Your task to perform on an android device: Go to Maps Image 0: 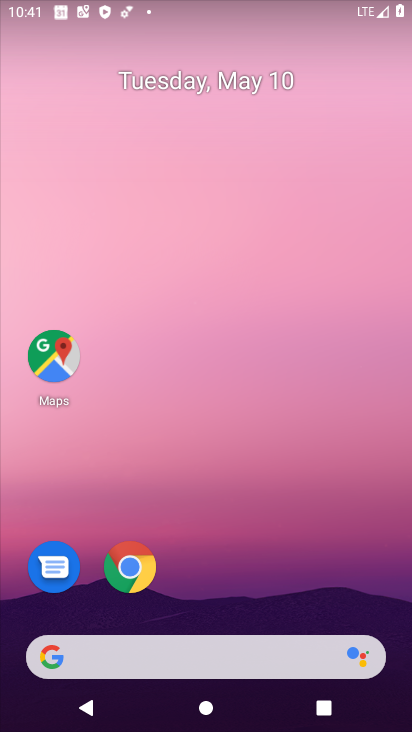
Step 0: click (47, 369)
Your task to perform on an android device: Go to Maps Image 1: 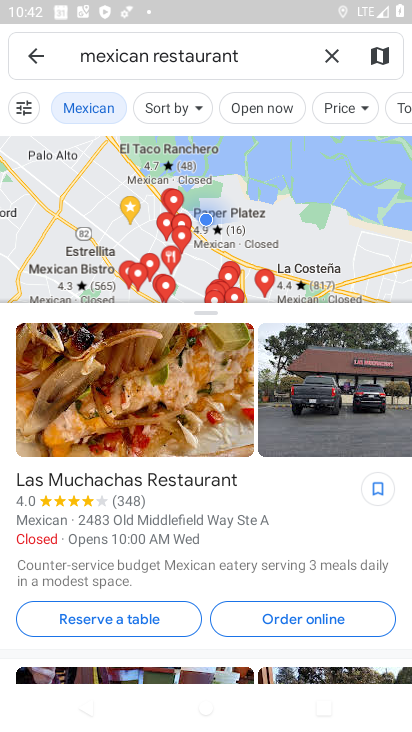
Step 1: task complete